Your task to perform on an android device: Open Google Chrome Image 0: 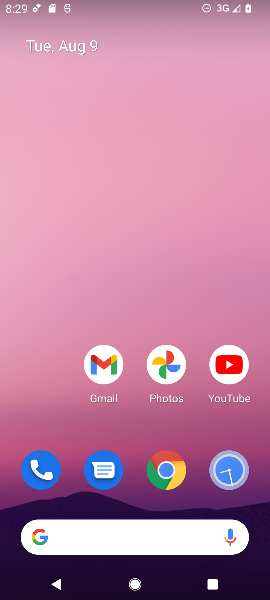
Step 0: click (166, 469)
Your task to perform on an android device: Open Google Chrome Image 1: 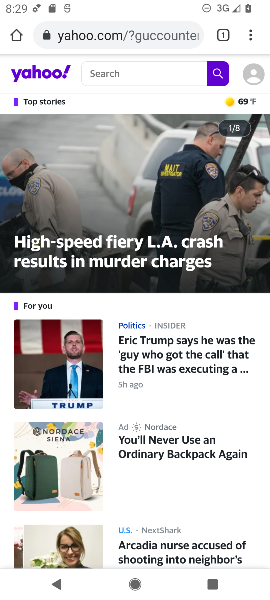
Step 1: task complete